Your task to perform on an android device: check storage Image 0: 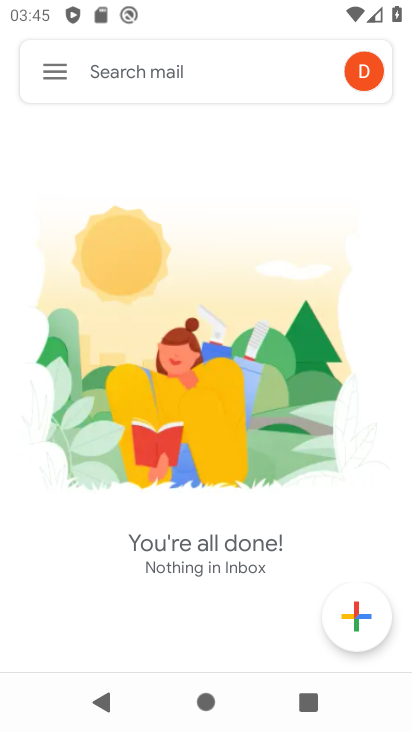
Step 0: press back button
Your task to perform on an android device: check storage Image 1: 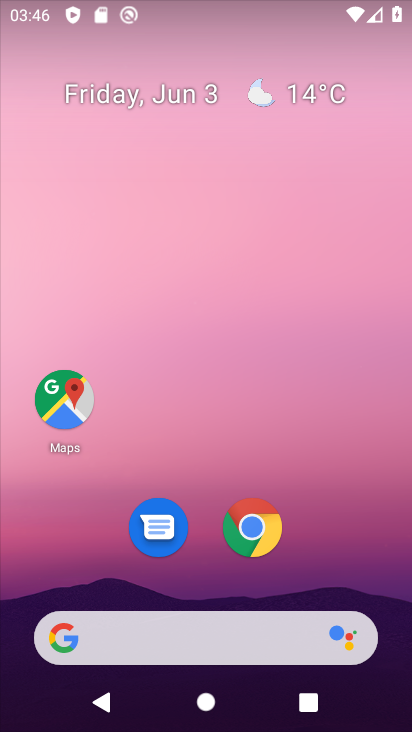
Step 1: drag from (342, 555) to (210, 64)
Your task to perform on an android device: check storage Image 2: 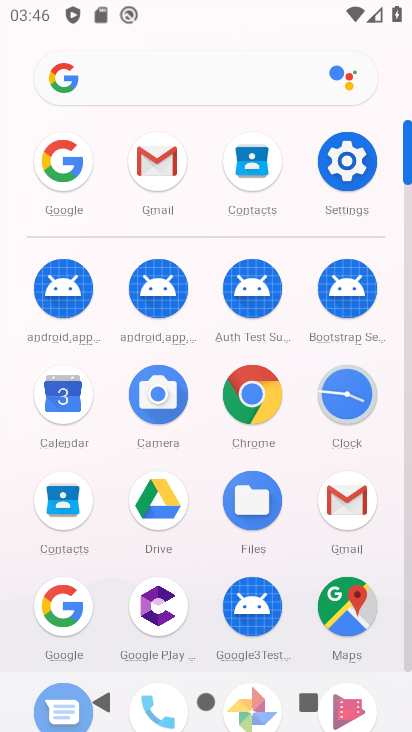
Step 2: click (346, 161)
Your task to perform on an android device: check storage Image 3: 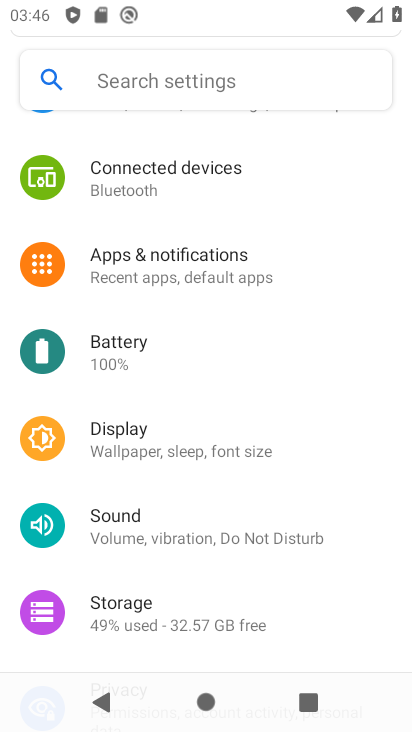
Step 3: drag from (207, 490) to (270, 346)
Your task to perform on an android device: check storage Image 4: 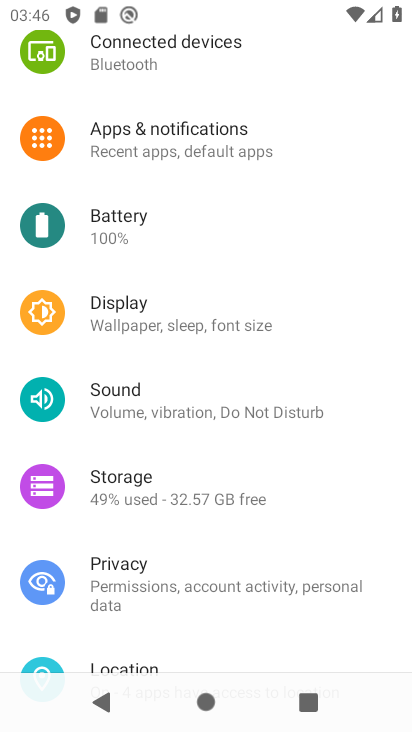
Step 4: click (162, 498)
Your task to perform on an android device: check storage Image 5: 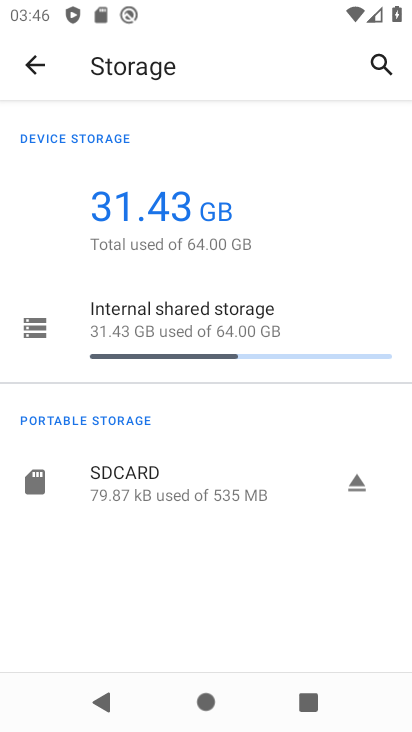
Step 5: task complete